Your task to perform on an android device: Open privacy settings Image 0: 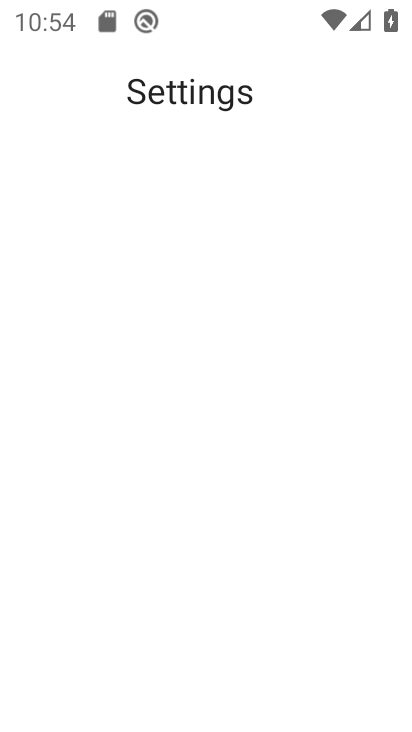
Step 0: drag from (379, 604) to (353, 265)
Your task to perform on an android device: Open privacy settings Image 1: 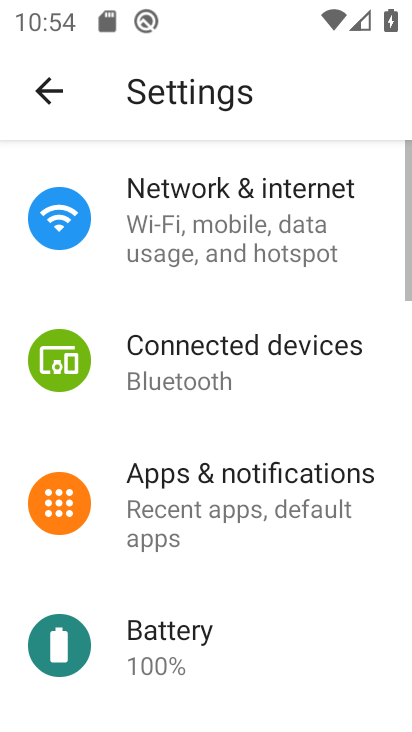
Step 1: press home button
Your task to perform on an android device: Open privacy settings Image 2: 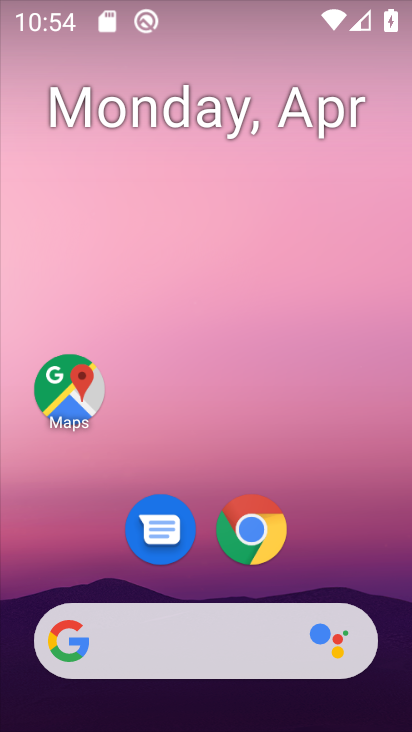
Step 2: drag from (358, 590) to (234, 42)
Your task to perform on an android device: Open privacy settings Image 3: 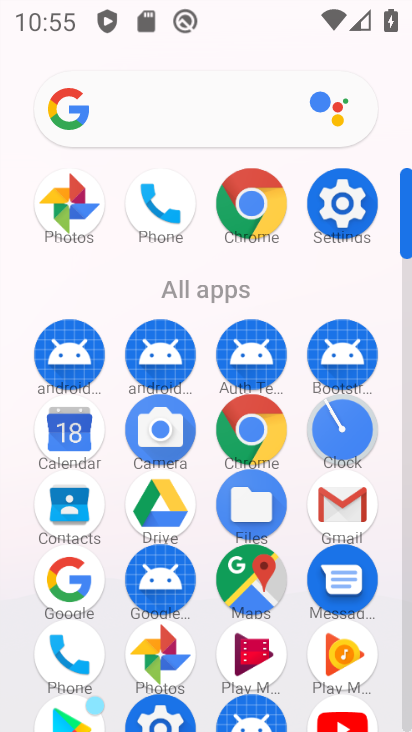
Step 3: click (344, 217)
Your task to perform on an android device: Open privacy settings Image 4: 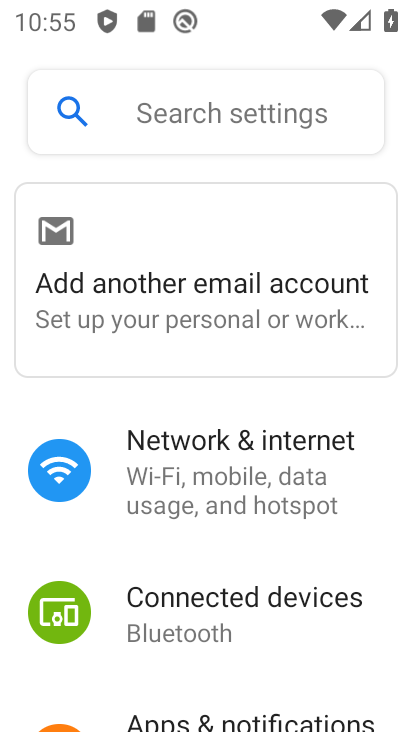
Step 4: drag from (131, 664) to (213, 98)
Your task to perform on an android device: Open privacy settings Image 5: 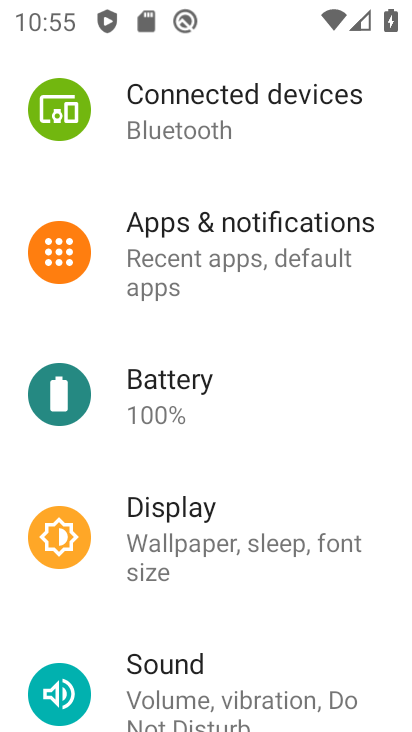
Step 5: drag from (167, 621) to (201, 86)
Your task to perform on an android device: Open privacy settings Image 6: 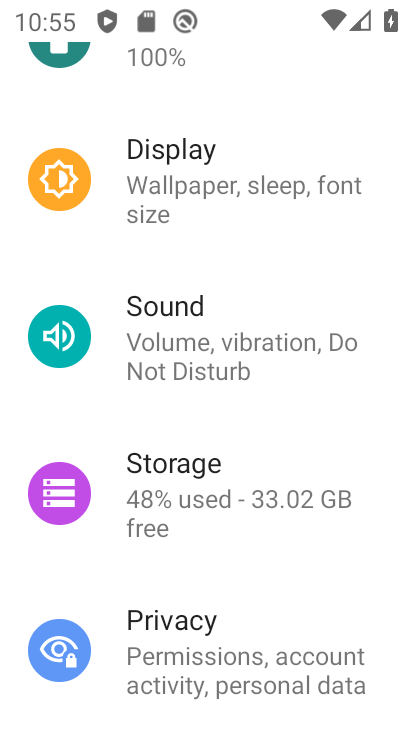
Step 6: click (155, 643)
Your task to perform on an android device: Open privacy settings Image 7: 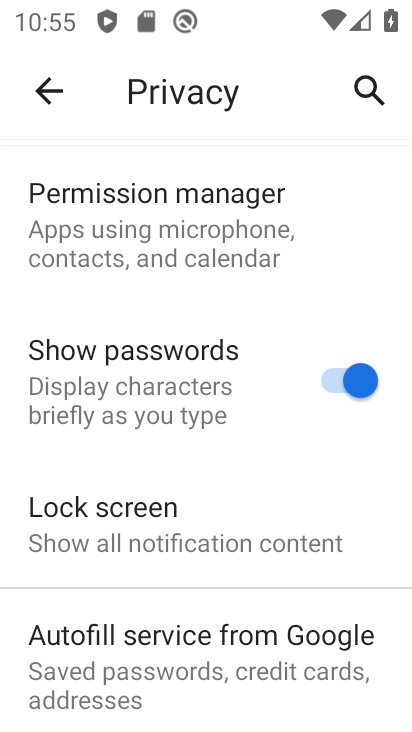
Step 7: task complete